Your task to perform on an android device: check out phone information Image 0: 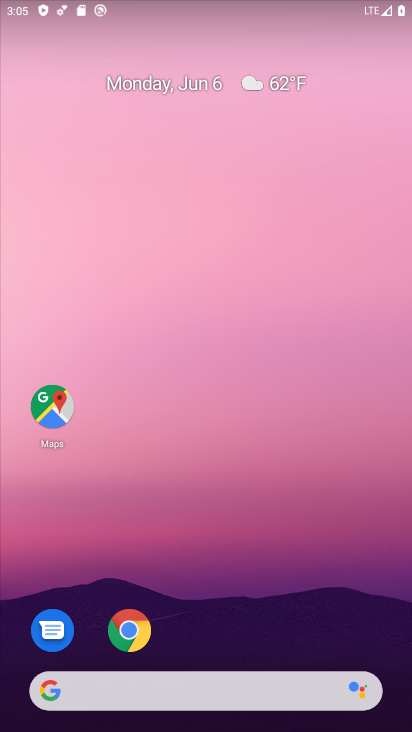
Step 0: press home button
Your task to perform on an android device: check out phone information Image 1: 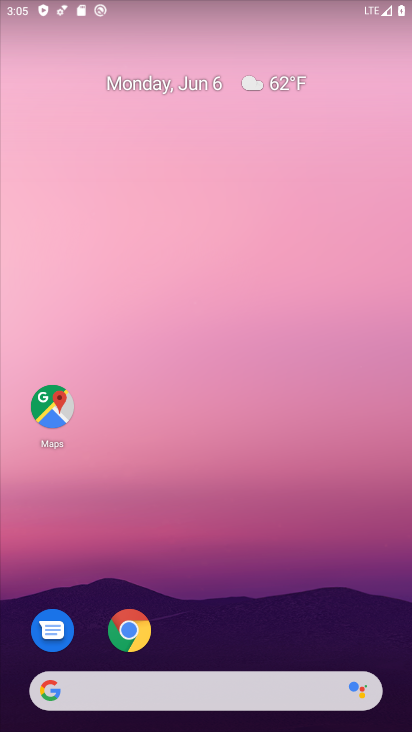
Step 1: drag from (223, 587) to (230, 289)
Your task to perform on an android device: check out phone information Image 2: 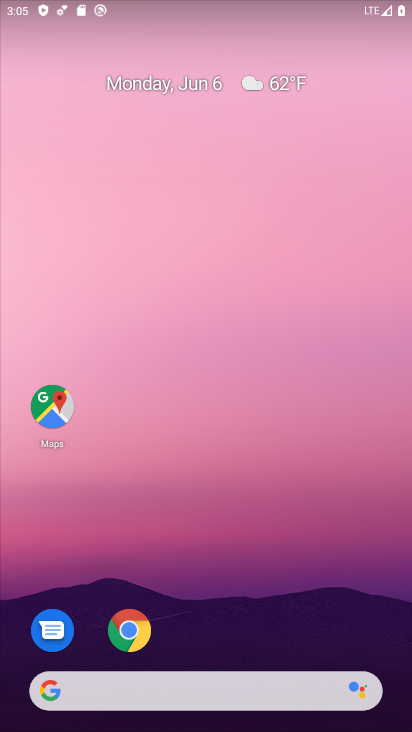
Step 2: drag from (349, 528) to (391, 1)
Your task to perform on an android device: check out phone information Image 3: 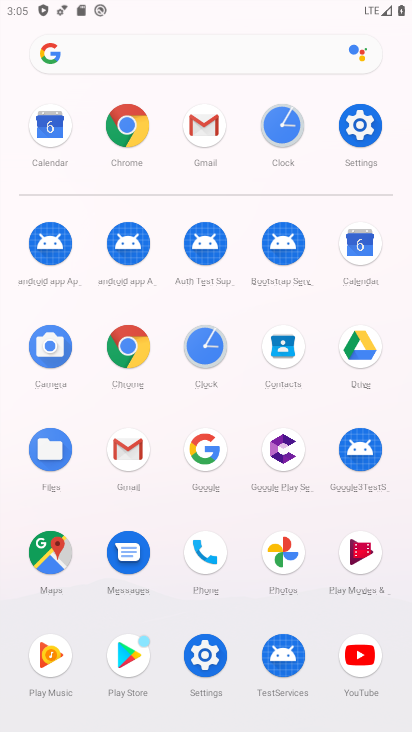
Step 3: click (208, 563)
Your task to perform on an android device: check out phone information Image 4: 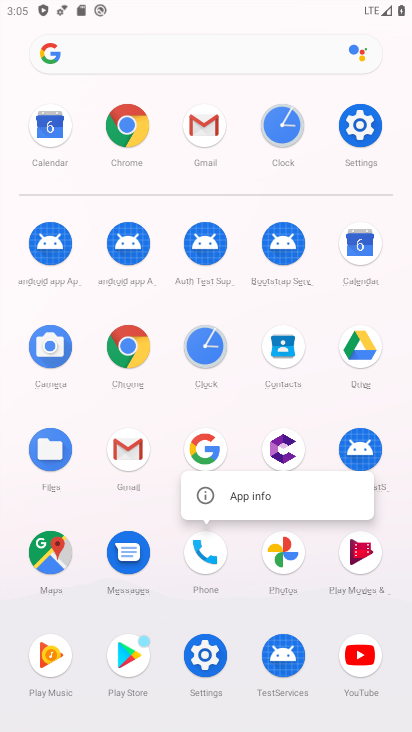
Step 4: click (230, 490)
Your task to perform on an android device: check out phone information Image 5: 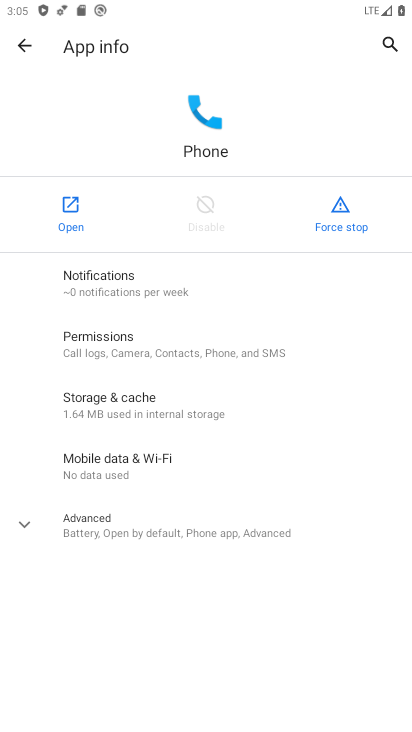
Step 5: task complete